Your task to perform on an android device: turn on airplane mode Image 0: 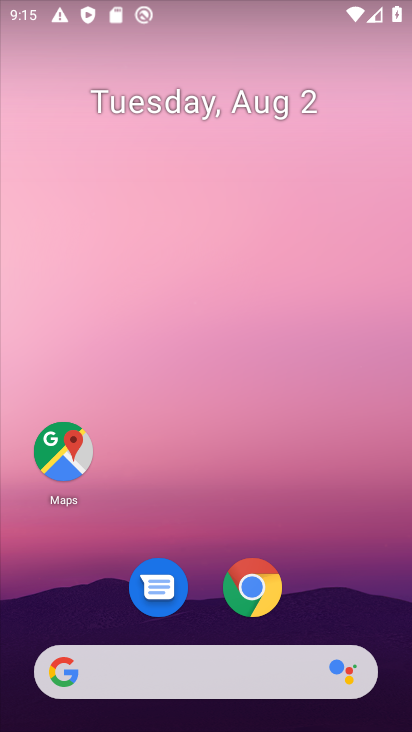
Step 0: drag from (272, 0) to (220, 10)
Your task to perform on an android device: turn on airplane mode Image 1: 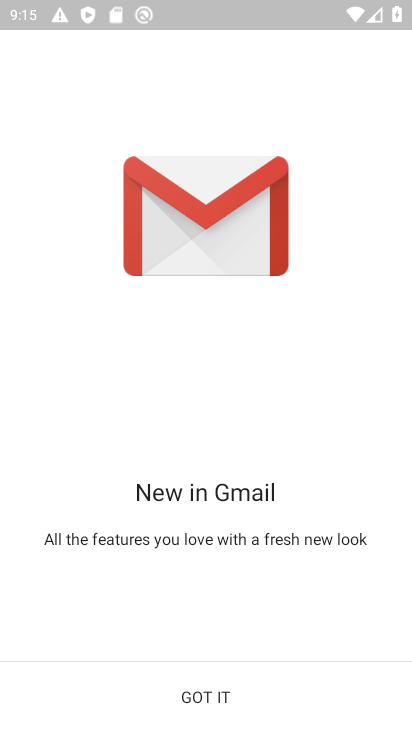
Step 1: press home button
Your task to perform on an android device: turn on airplane mode Image 2: 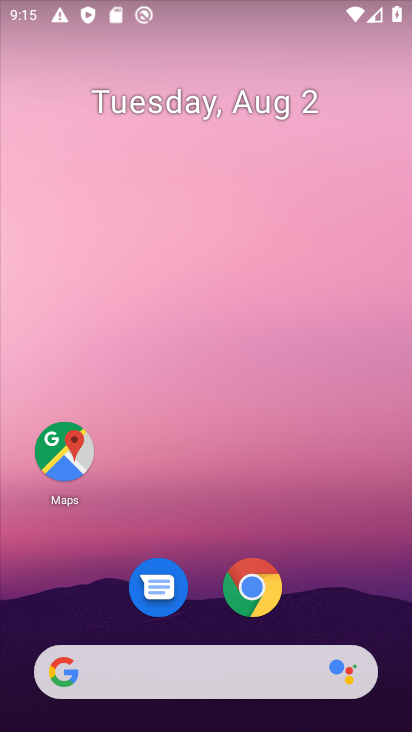
Step 2: drag from (323, 618) to (265, 66)
Your task to perform on an android device: turn on airplane mode Image 3: 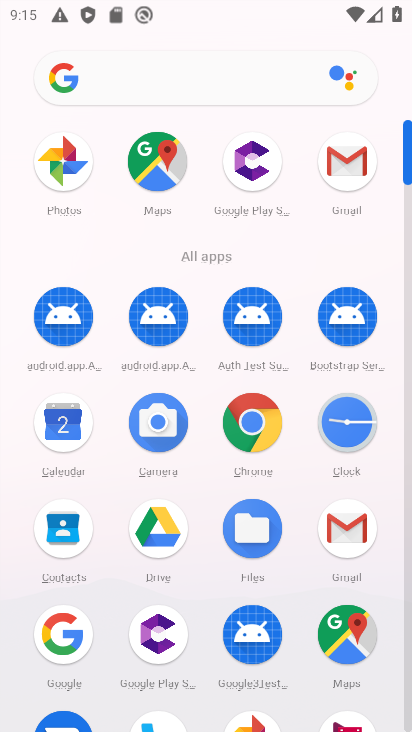
Step 3: click (409, 600)
Your task to perform on an android device: turn on airplane mode Image 4: 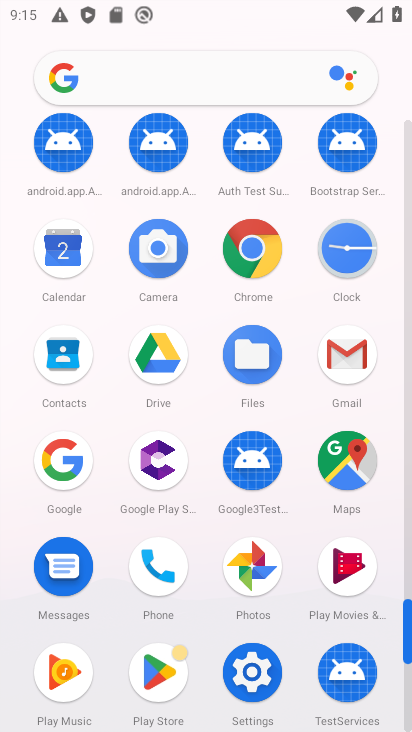
Step 4: click (256, 692)
Your task to perform on an android device: turn on airplane mode Image 5: 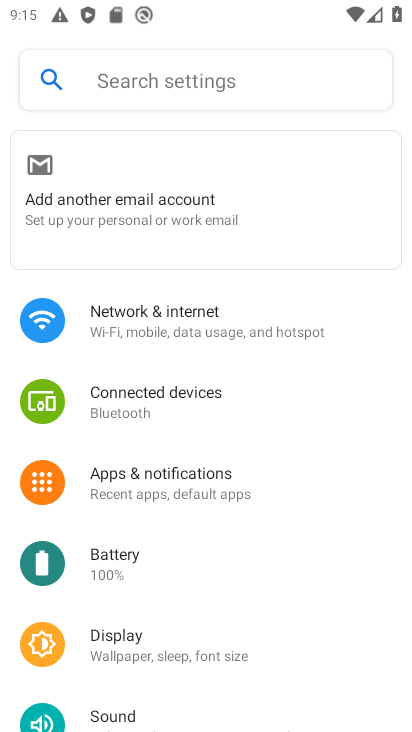
Step 5: click (165, 311)
Your task to perform on an android device: turn on airplane mode Image 6: 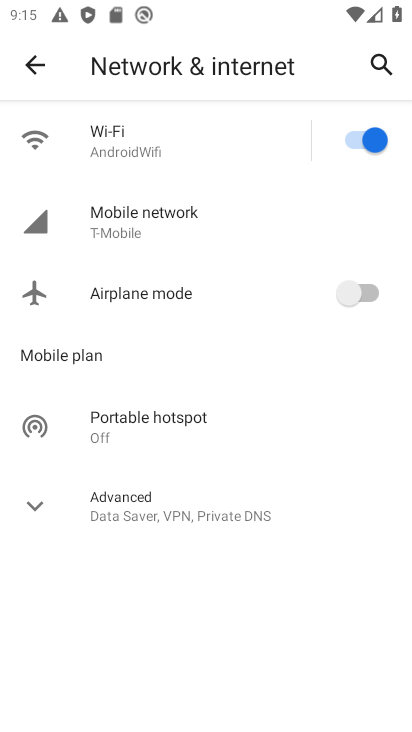
Step 6: click (360, 291)
Your task to perform on an android device: turn on airplane mode Image 7: 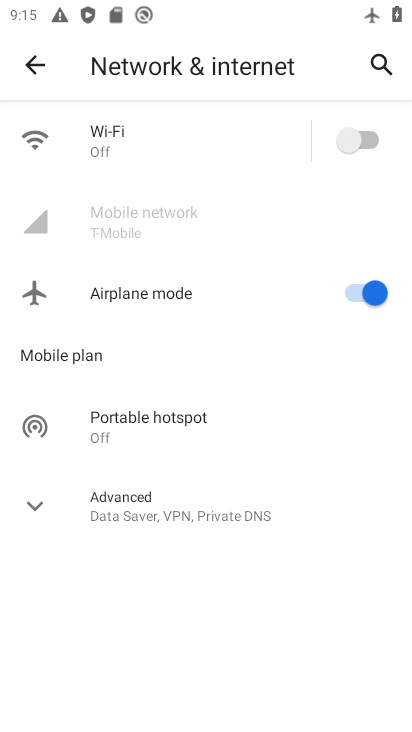
Step 7: task complete